Your task to perform on an android device: change the clock display to show seconds Image 0: 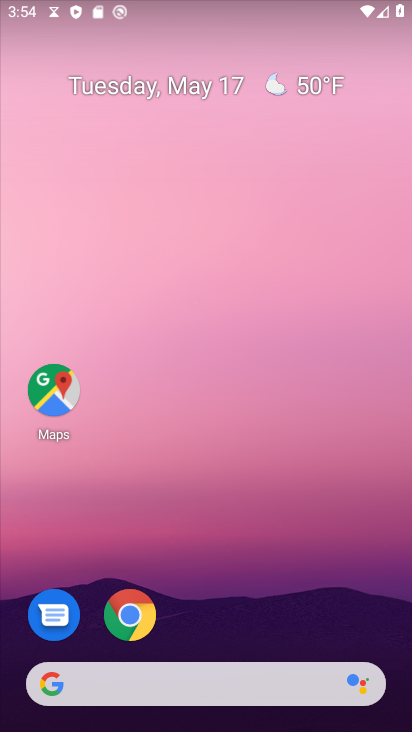
Step 0: click (285, 197)
Your task to perform on an android device: change the clock display to show seconds Image 1: 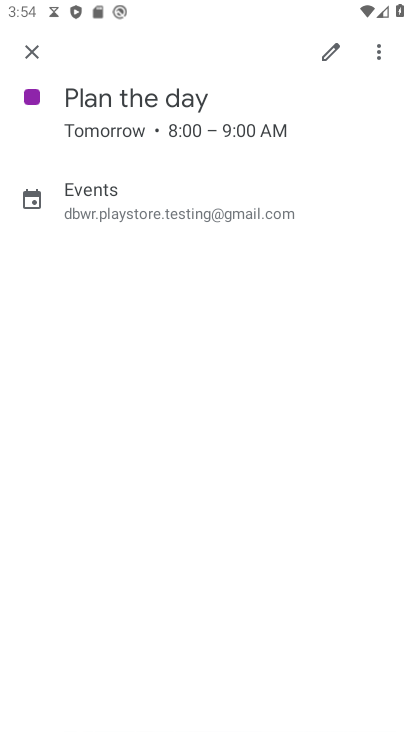
Step 1: click (31, 51)
Your task to perform on an android device: change the clock display to show seconds Image 2: 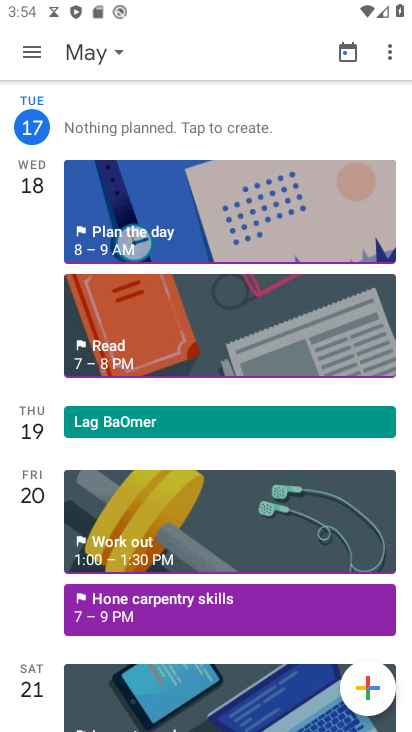
Step 2: press home button
Your task to perform on an android device: change the clock display to show seconds Image 3: 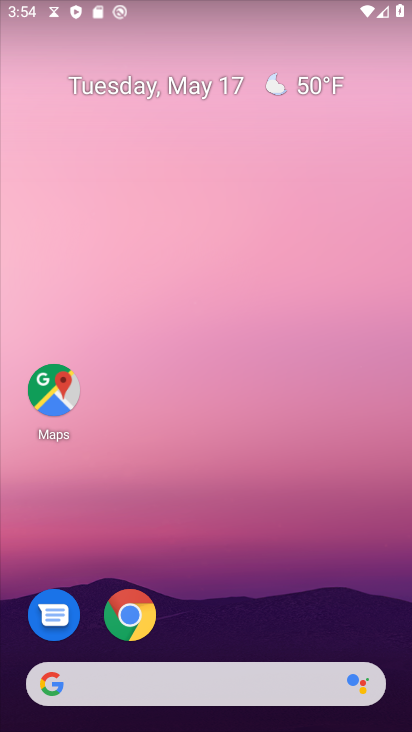
Step 3: click (268, 217)
Your task to perform on an android device: change the clock display to show seconds Image 4: 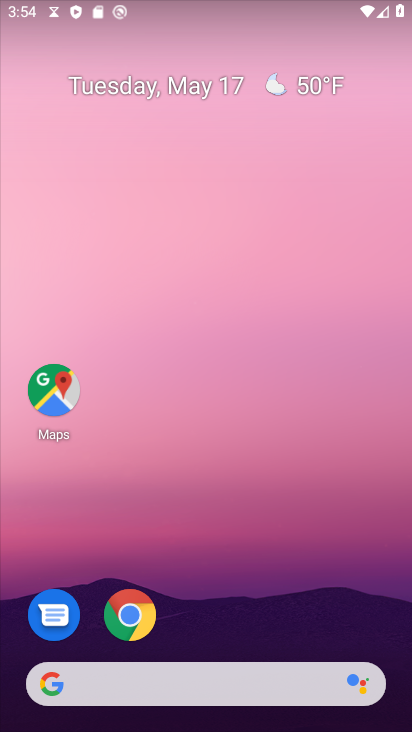
Step 4: drag from (251, 635) to (219, 149)
Your task to perform on an android device: change the clock display to show seconds Image 5: 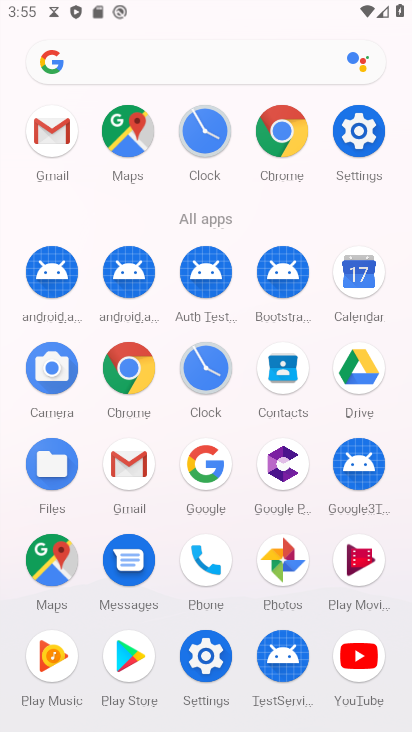
Step 5: click (206, 370)
Your task to perform on an android device: change the clock display to show seconds Image 6: 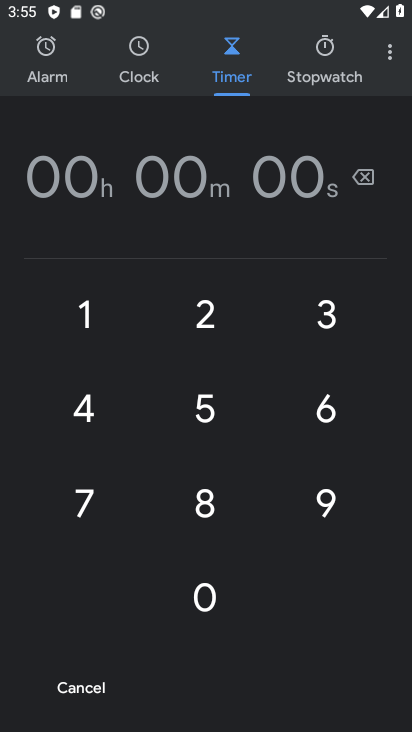
Step 6: click (380, 55)
Your task to perform on an android device: change the clock display to show seconds Image 7: 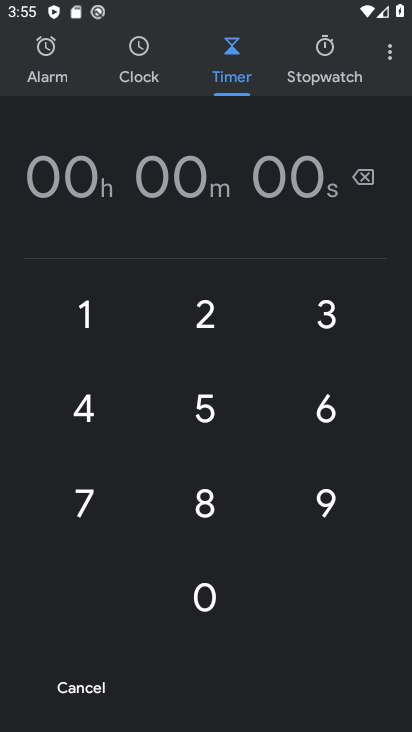
Step 7: click (390, 54)
Your task to perform on an android device: change the clock display to show seconds Image 8: 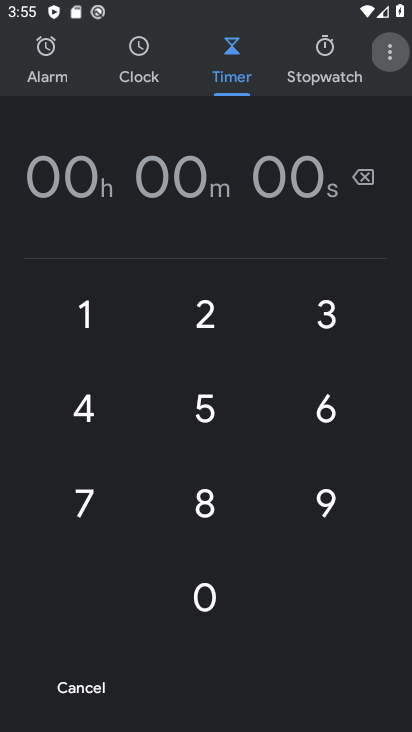
Step 8: click (390, 54)
Your task to perform on an android device: change the clock display to show seconds Image 9: 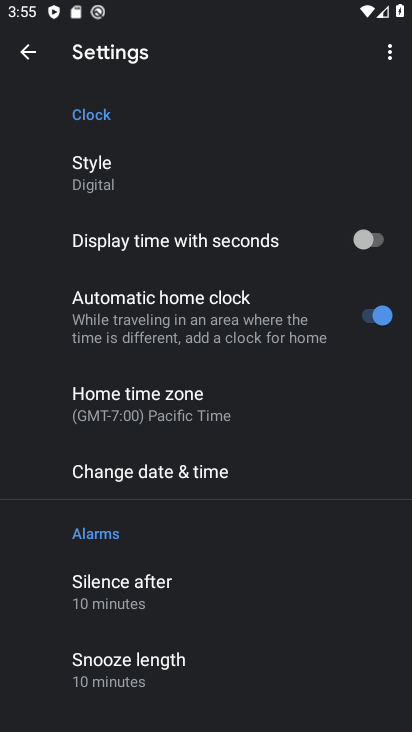
Step 9: click (363, 236)
Your task to perform on an android device: change the clock display to show seconds Image 10: 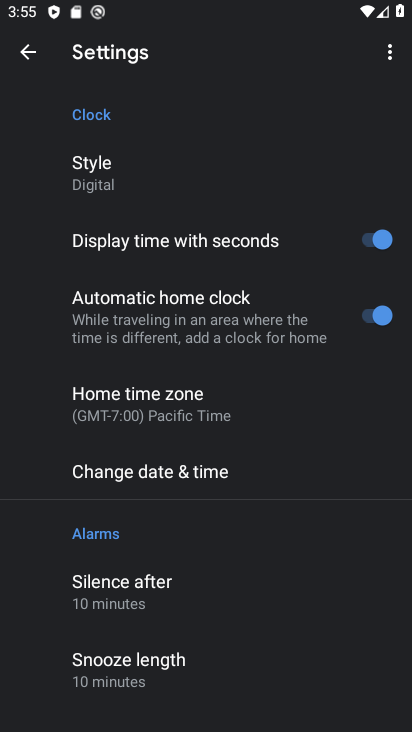
Step 10: task complete